Your task to perform on an android device: Go to Google Image 0: 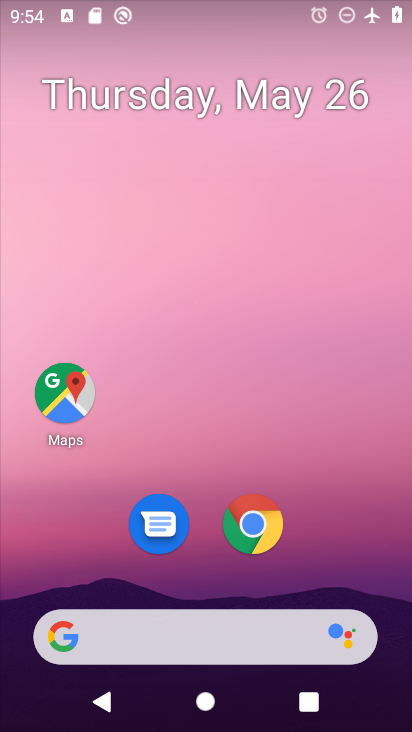
Step 0: click (227, 646)
Your task to perform on an android device: Go to Google Image 1: 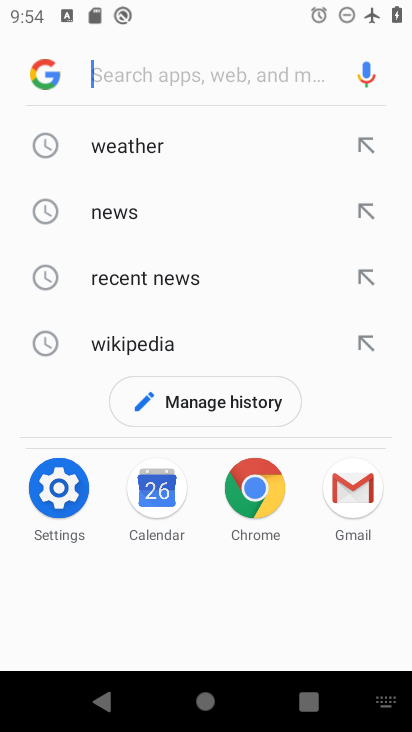
Step 1: click (46, 80)
Your task to perform on an android device: Go to Google Image 2: 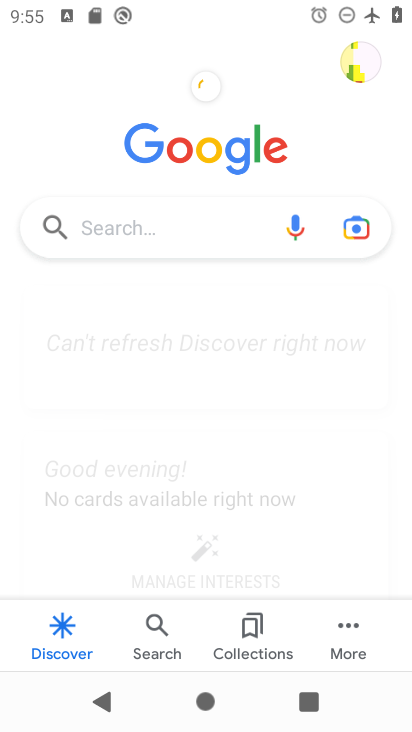
Step 2: task complete